Your task to perform on an android device: open app "Mercado Libre" (install if not already installed) and enter user name: "tolerating@yahoo.com" and password: "Kepler" Image 0: 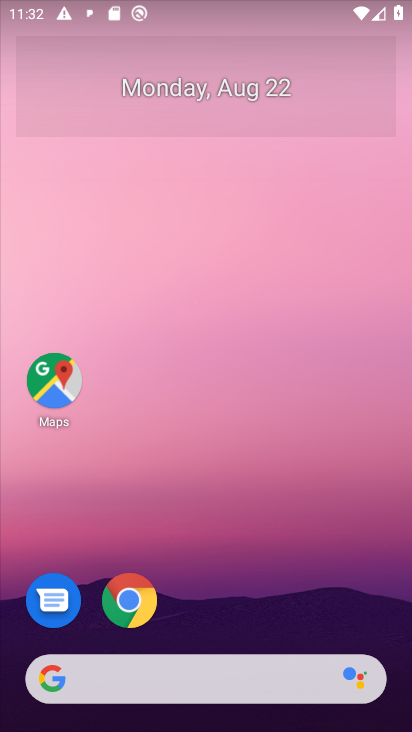
Step 0: drag from (219, 574) to (237, 169)
Your task to perform on an android device: open app "Mercado Libre" (install if not already installed) and enter user name: "tolerating@yahoo.com" and password: "Kepler" Image 1: 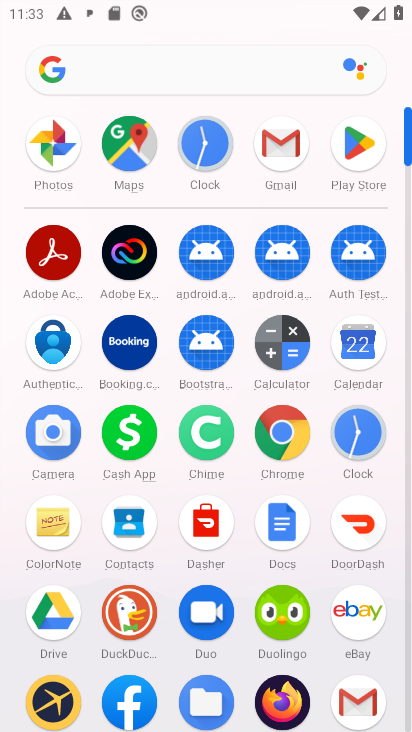
Step 1: click (327, 140)
Your task to perform on an android device: open app "Mercado Libre" (install if not already installed) and enter user name: "tolerating@yahoo.com" and password: "Kepler" Image 2: 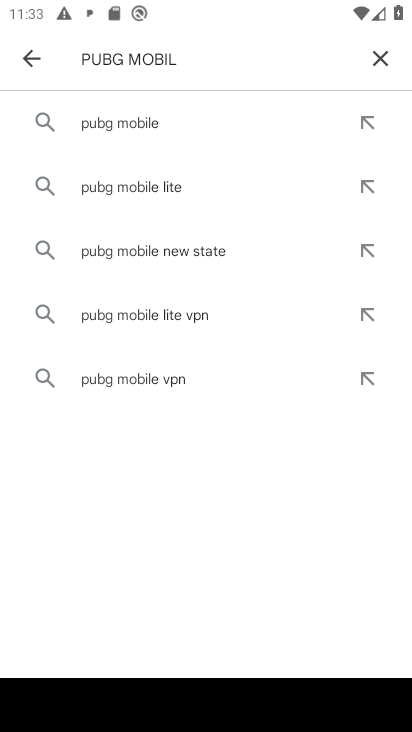
Step 2: click (368, 60)
Your task to perform on an android device: open app "Mercado Libre" (install if not already installed) and enter user name: "tolerating@yahoo.com" and password: "Kepler" Image 3: 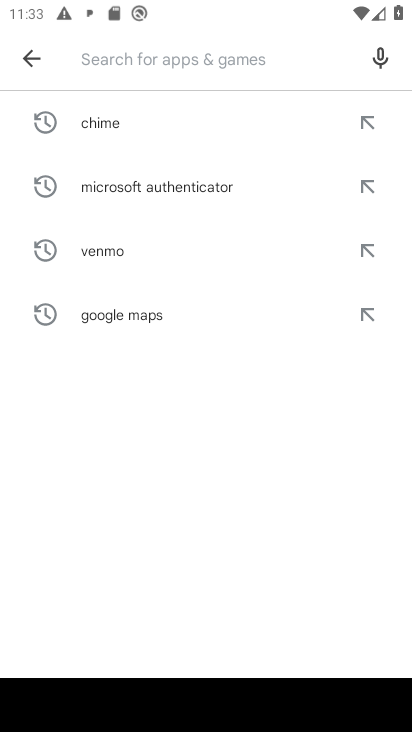
Step 3: type "Mercado Libre"
Your task to perform on an android device: open app "Mercado Libre" (install if not already installed) and enter user name: "tolerating@yahoo.com" and password: "Kepler" Image 4: 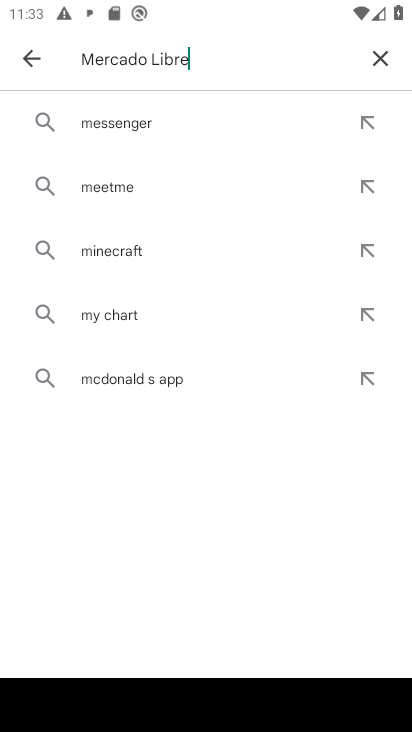
Step 4: type ""
Your task to perform on an android device: open app "Mercado Libre" (install if not already installed) and enter user name: "tolerating@yahoo.com" and password: "Kepler" Image 5: 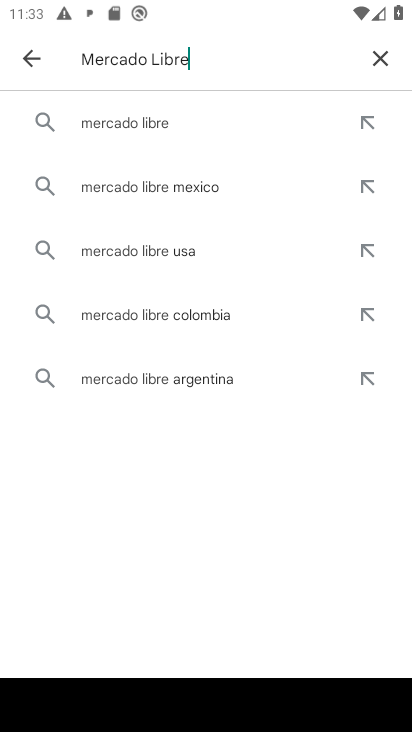
Step 5: click (164, 118)
Your task to perform on an android device: open app "Mercado Libre" (install if not already installed) and enter user name: "tolerating@yahoo.com" and password: "Kepler" Image 6: 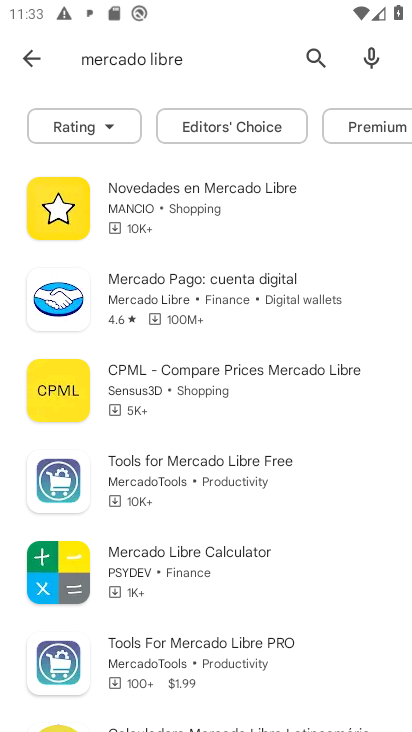
Step 6: click (231, 217)
Your task to perform on an android device: open app "Mercado Libre" (install if not already installed) and enter user name: "tolerating@yahoo.com" and password: "Kepler" Image 7: 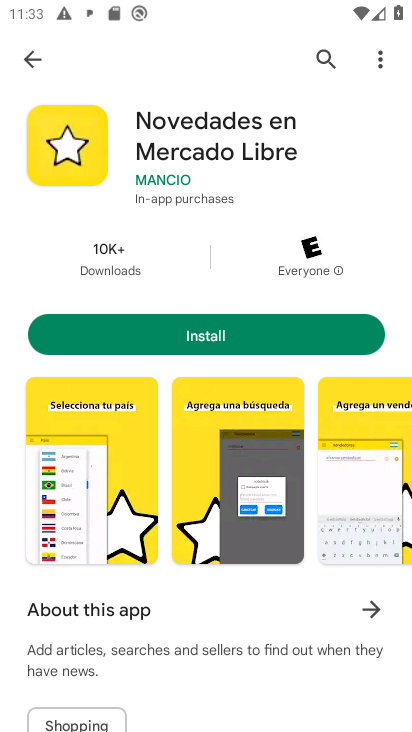
Step 7: click (218, 341)
Your task to perform on an android device: open app "Mercado Libre" (install if not already installed) and enter user name: "tolerating@yahoo.com" and password: "Kepler" Image 8: 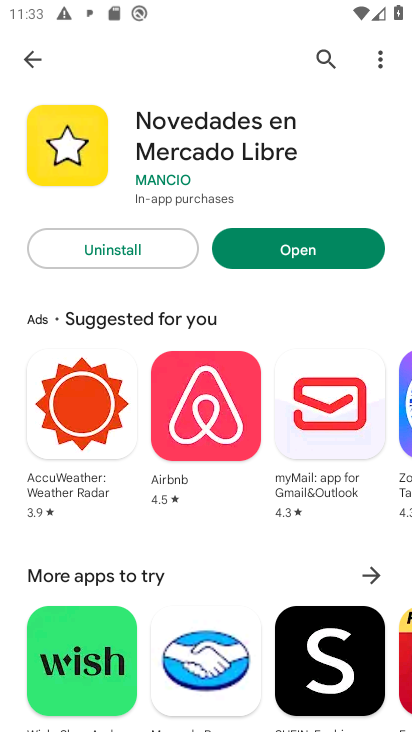
Step 8: click (320, 251)
Your task to perform on an android device: open app "Mercado Libre" (install if not already installed) and enter user name: "tolerating@yahoo.com" and password: "Kepler" Image 9: 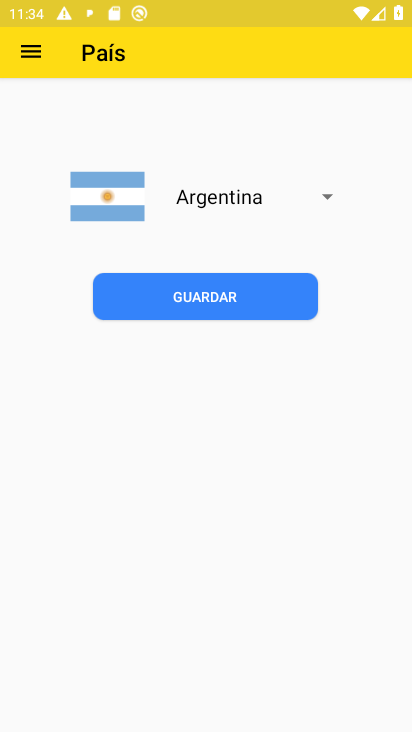
Step 9: task complete